Your task to perform on an android device: Open battery settings Image 0: 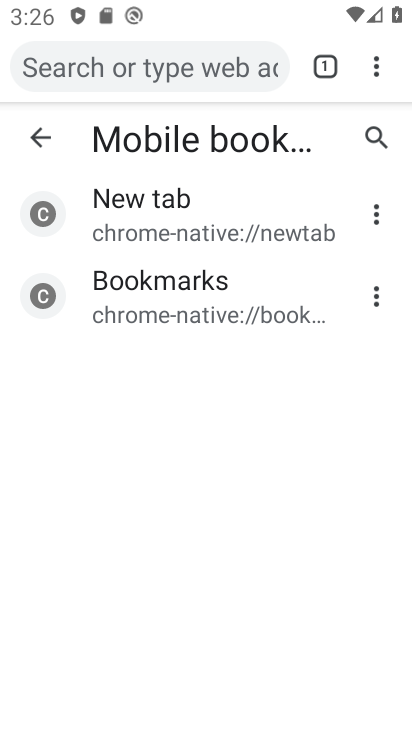
Step 0: press home button
Your task to perform on an android device: Open battery settings Image 1: 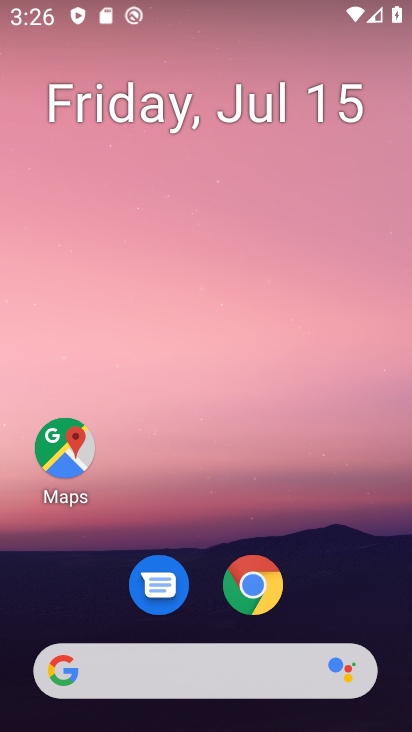
Step 1: click (227, 636)
Your task to perform on an android device: Open battery settings Image 2: 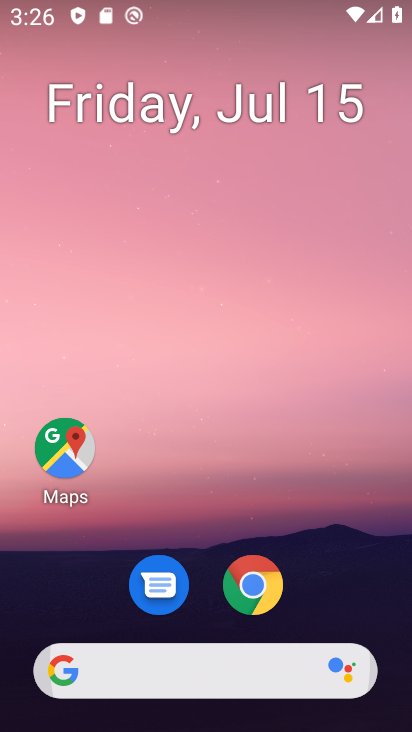
Step 2: drag from (210, 690) to (217, 122)
Your task to perform on an android device: Open battery settings Image 3: 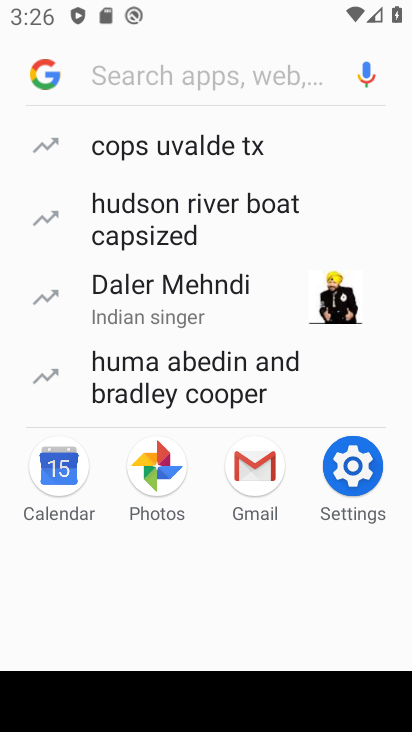
Step 3: press home button
Your task to perform on an android device: Open battery settings Image 4: 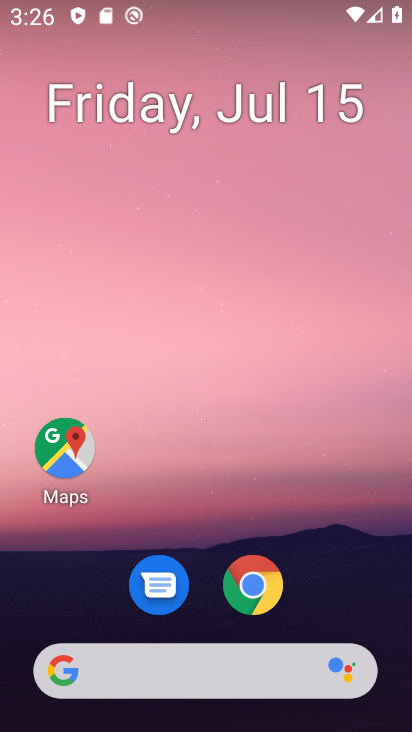
Step 4: drag from (212, 672) to (231, 143)
Your task to perform on an android device: Open battery settings Image 5: 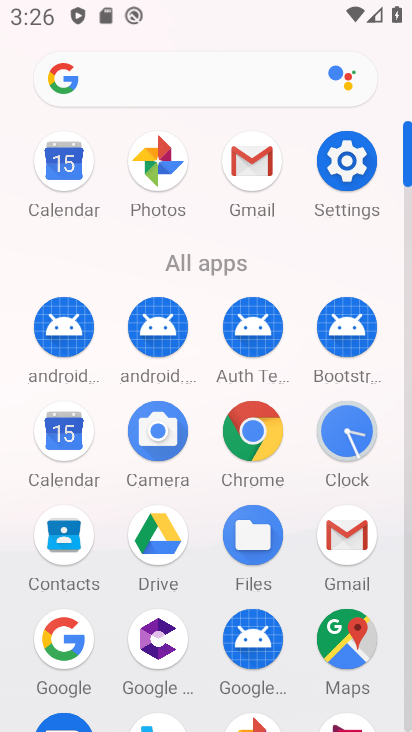
Step 5: click (343, 173)
Your task to perform on an android device: Open battery settings Image 6: 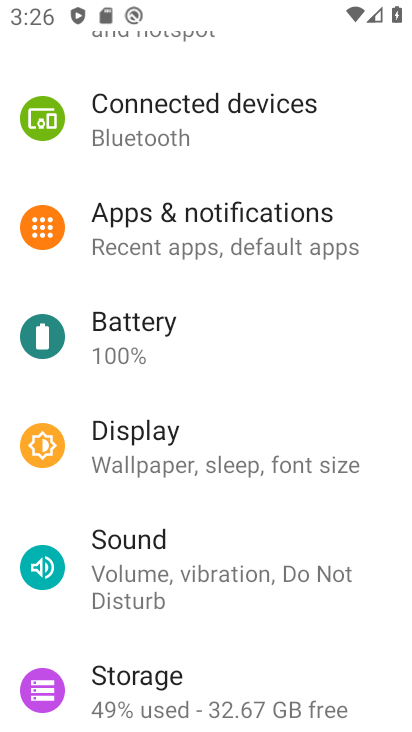
Step 6: click (149, 330)
Your task to perform on an android device: Open battery settings Image 7: 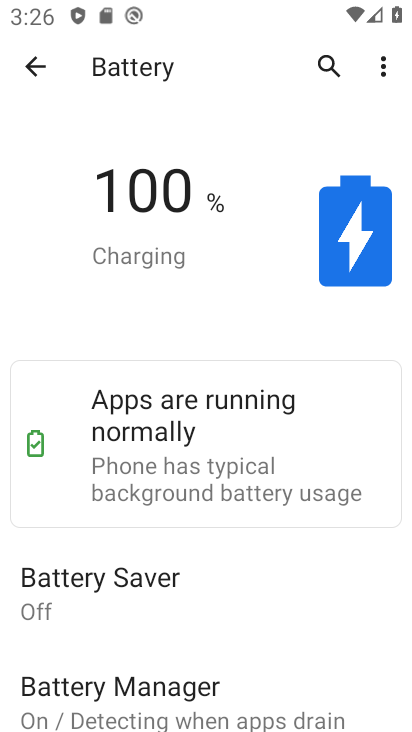
Step 7: task complete